Your task to perform on an android device: all mails in gmail Image 0: 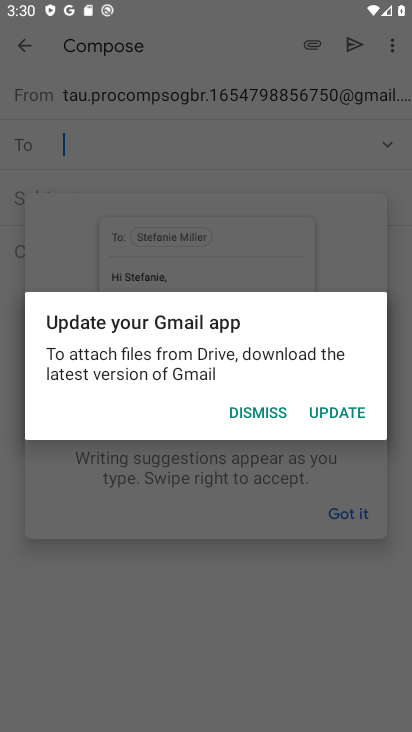
Step 0: press home button
Your task to perform on an android device: all mails in gmail Image 1: 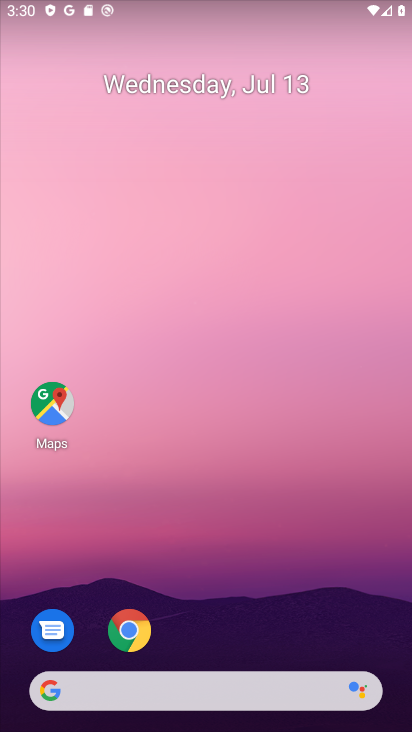
Step 1: drag from (175, 568) to (190, 254)
Your task to perform on an android device: all mails in gmail Image 2: 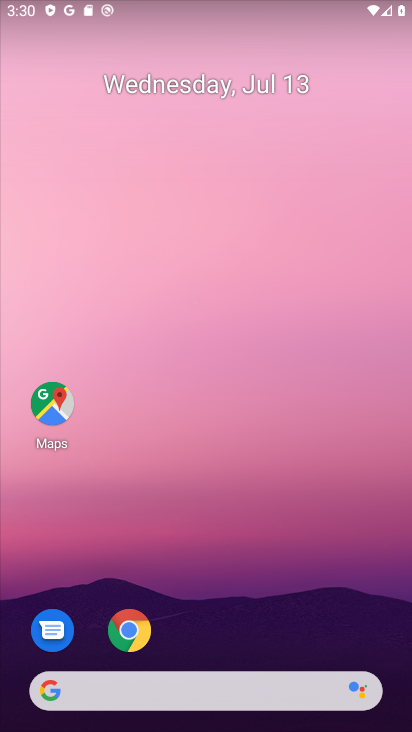
Step 2: drag from (197, 472) to (301, 3)
Your task to perform on an android device: all mails in gmail Image 3: 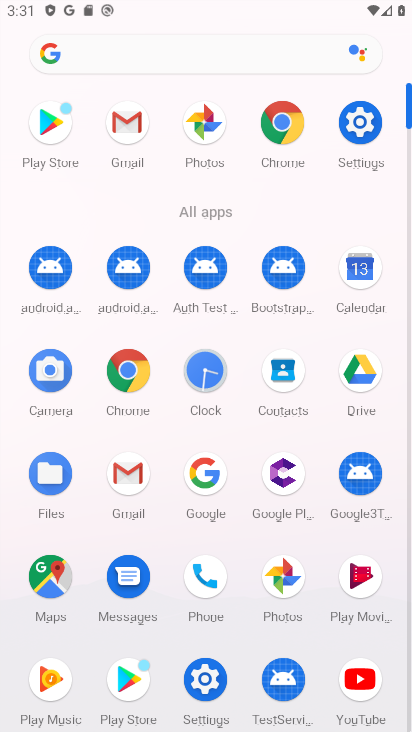
Step 3: click (136, 468)
Your task to perform on an android device: all mails in gmail Image 4: 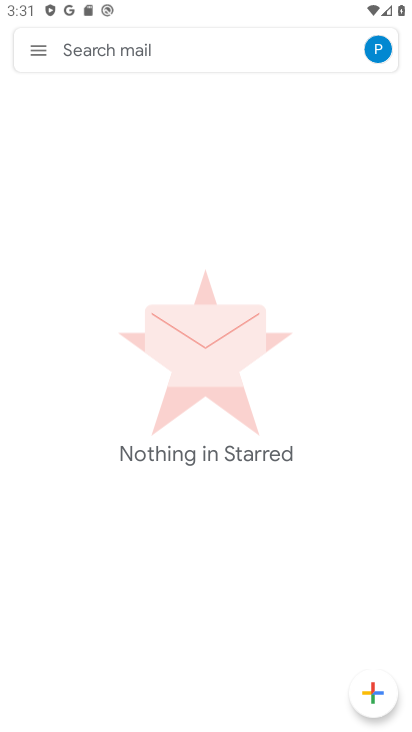
Step 4: click (39, 51)
Your task to perform on an android device: all mails in gmail Image 5: 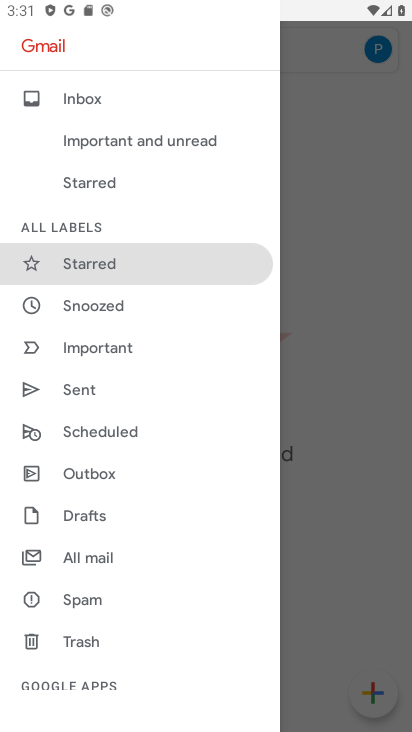
Step 5: click (84, 557)
Your task to perform on an android device: all mails in gmail Image 6: 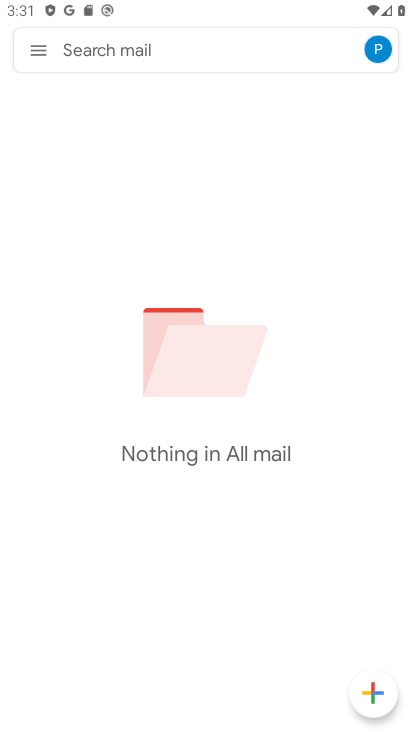
Step 6: task complete